Your task to perform on an android device: empty trash in the gmail app Image 0: 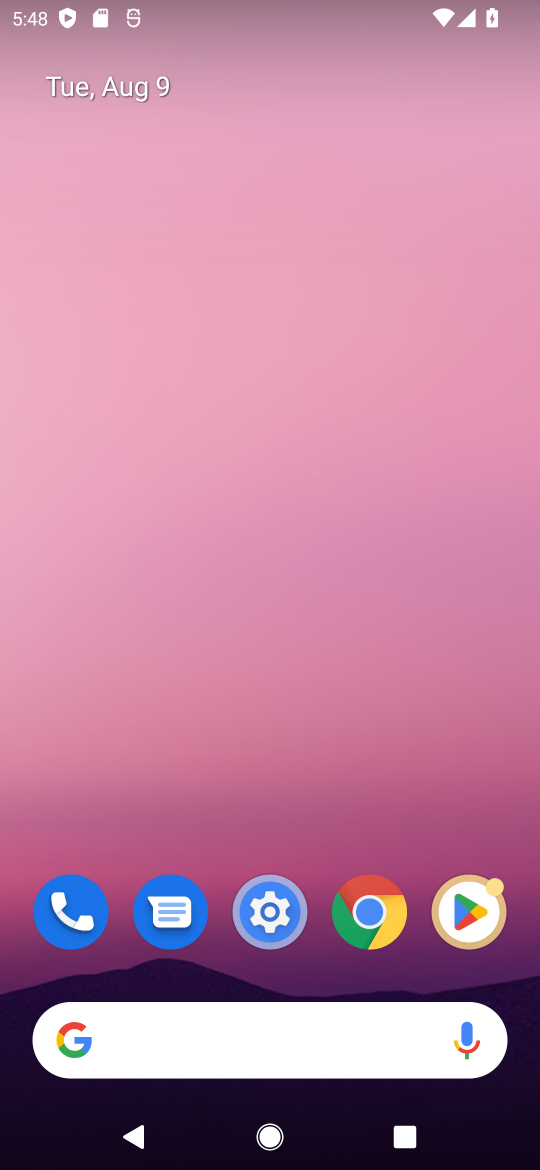
Step 0: drag from (309, 964) to (247, 370)
Your task to perform on an android device: empty trash in the gmail app Image 1: 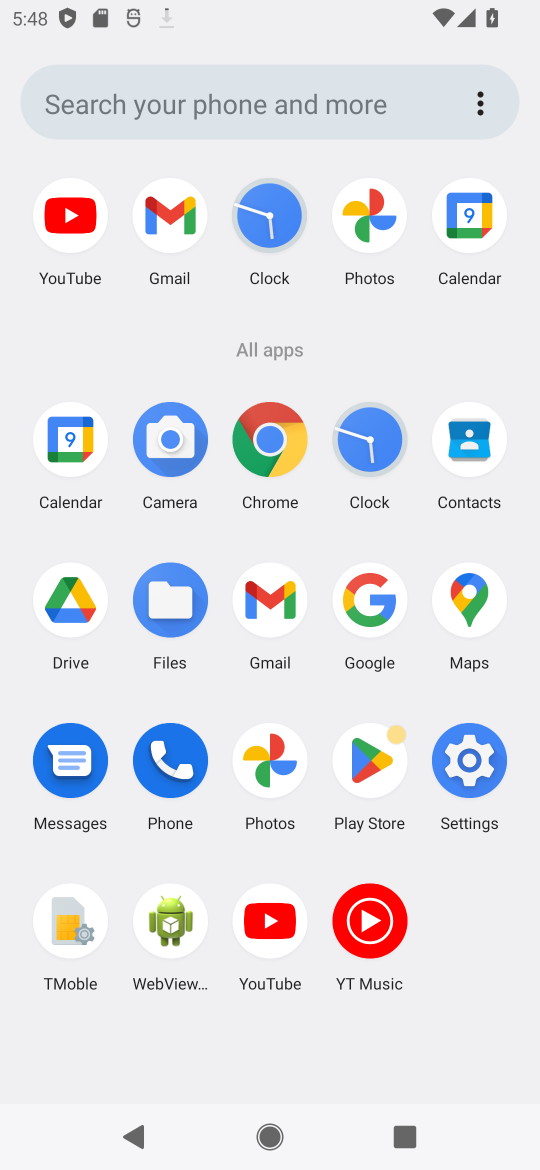
Step 1: click (265, 600)
Your task to perform on an android device: empty trash in the gmail app Image 2: 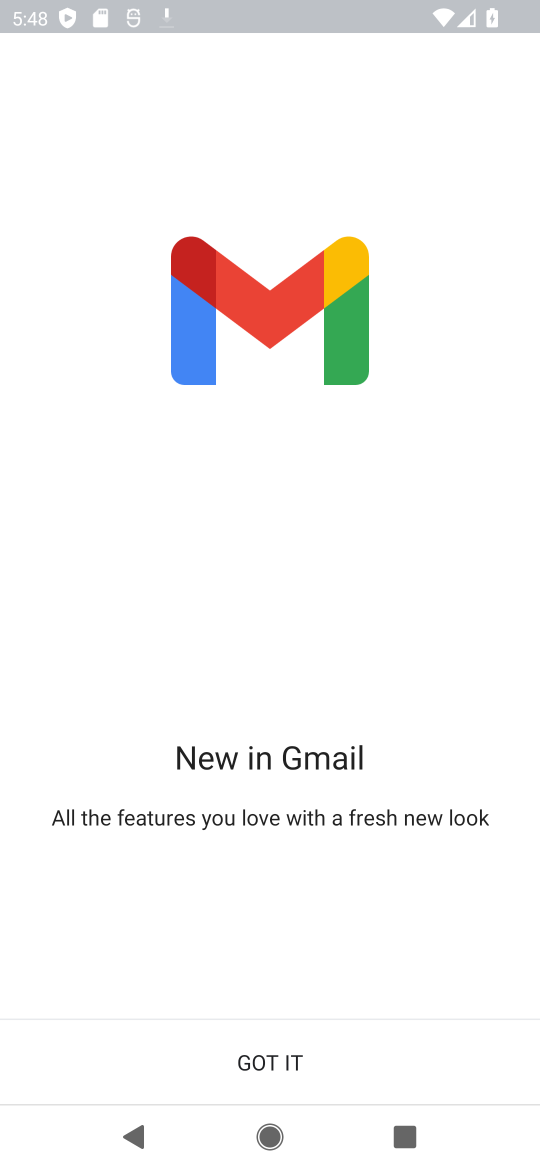
Step 2: click (263, 1067)
Your task to perform on an android device: empty trash in the gmail app Image 3: 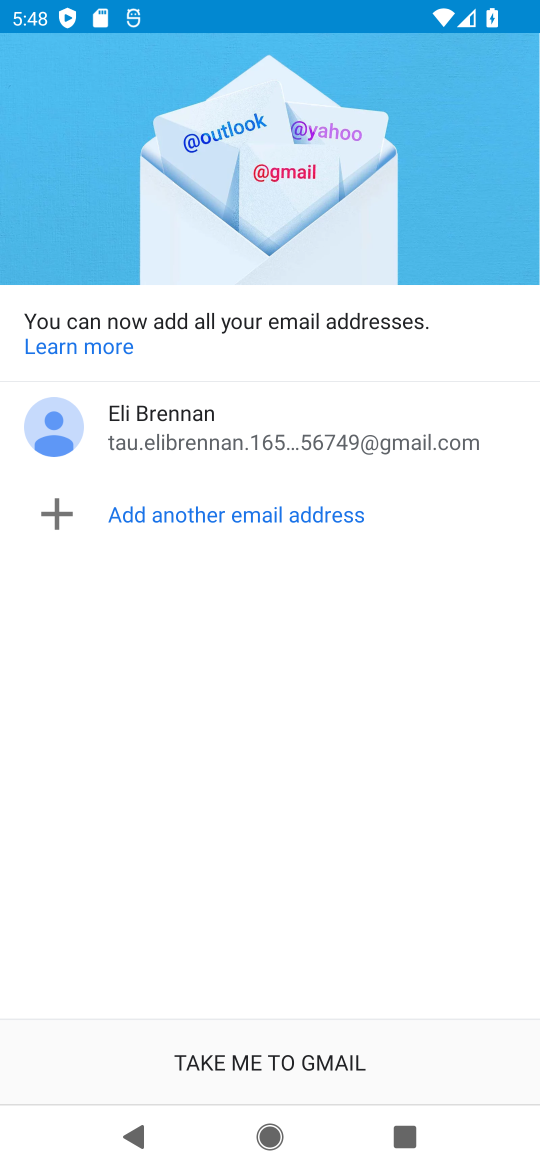
Step 3: click (240, 1071)
Your task to perform on an android device: empty trash in the gmail app Image 4: 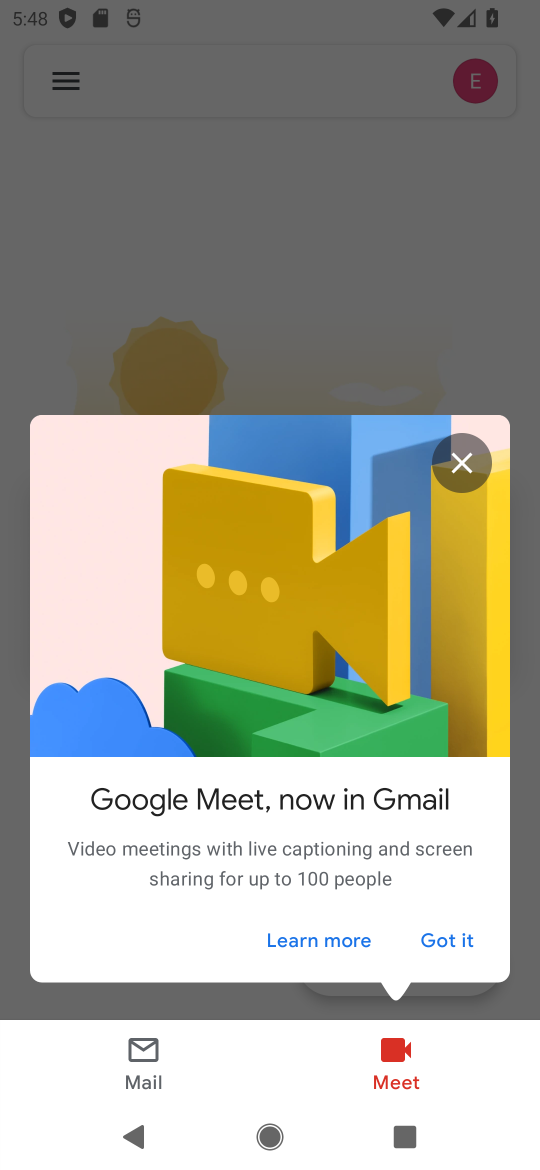
Step 4: click (475, 470)
Your task to perform on an android device: empty trash in the gmail app Image 5: 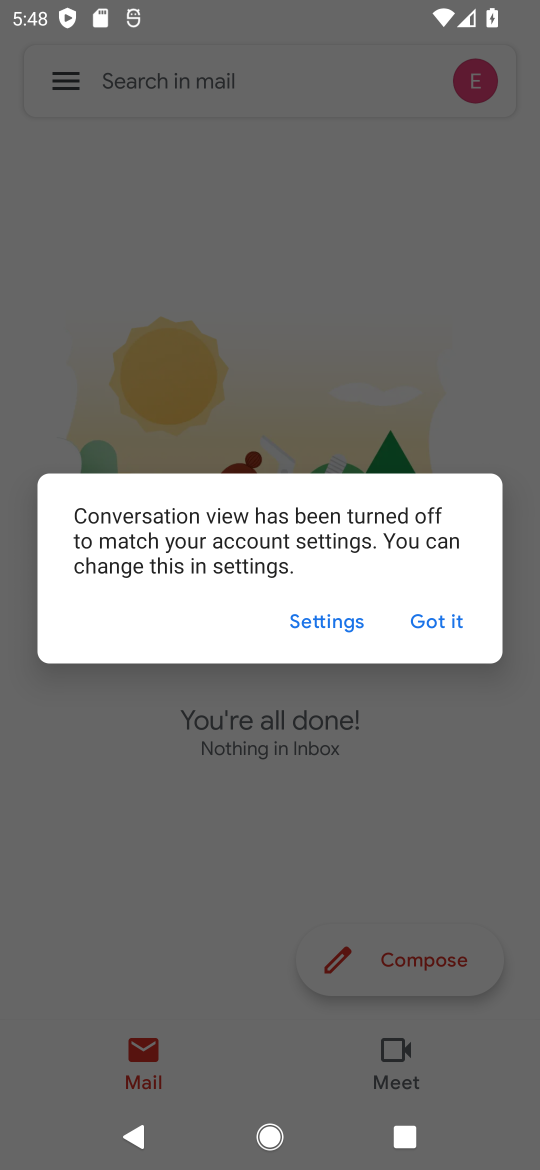
Step 5: click (444, 624)
Your task to perform on an android device: empty trash in the gmail app Image 6: 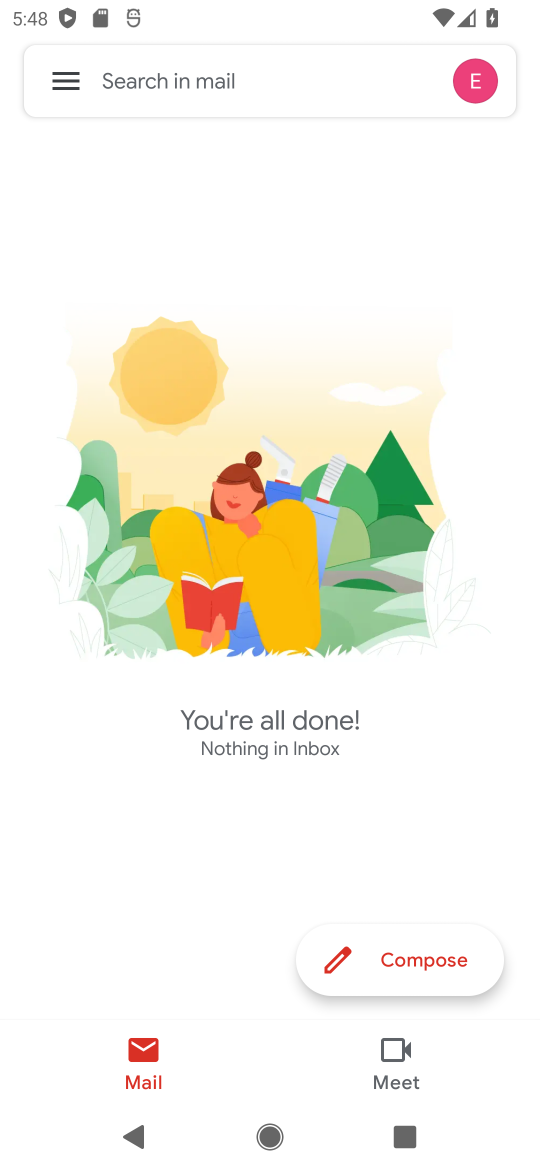
Step 6: click (54, 93)
Your task to perform on an android device: empty trash in the gmail app Image 7: 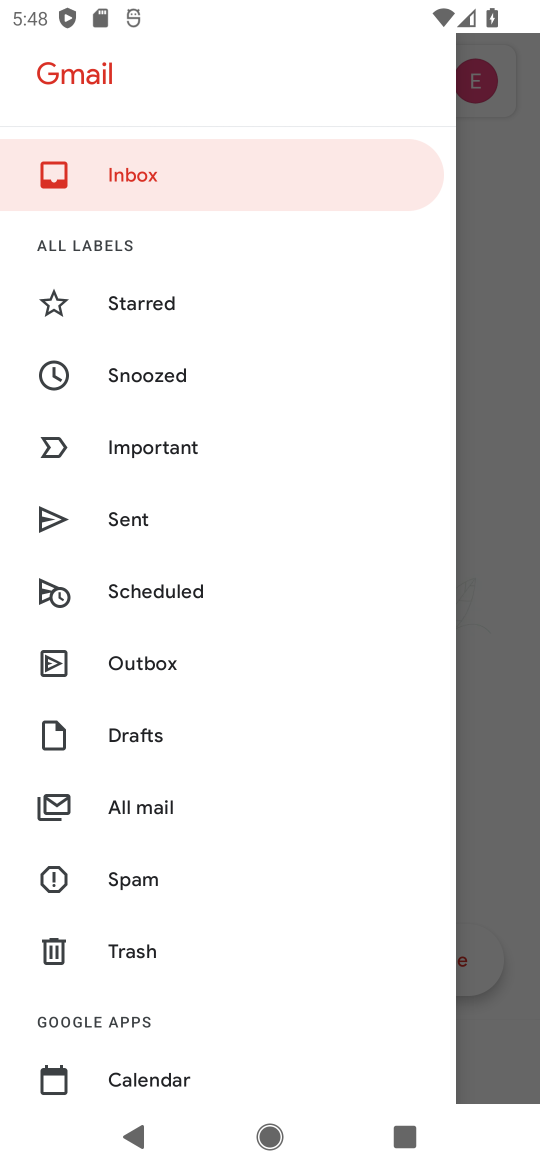
Step 7: click (119, 957)
Your task to perform on an android device: empty trash in the gmail app Image 8: 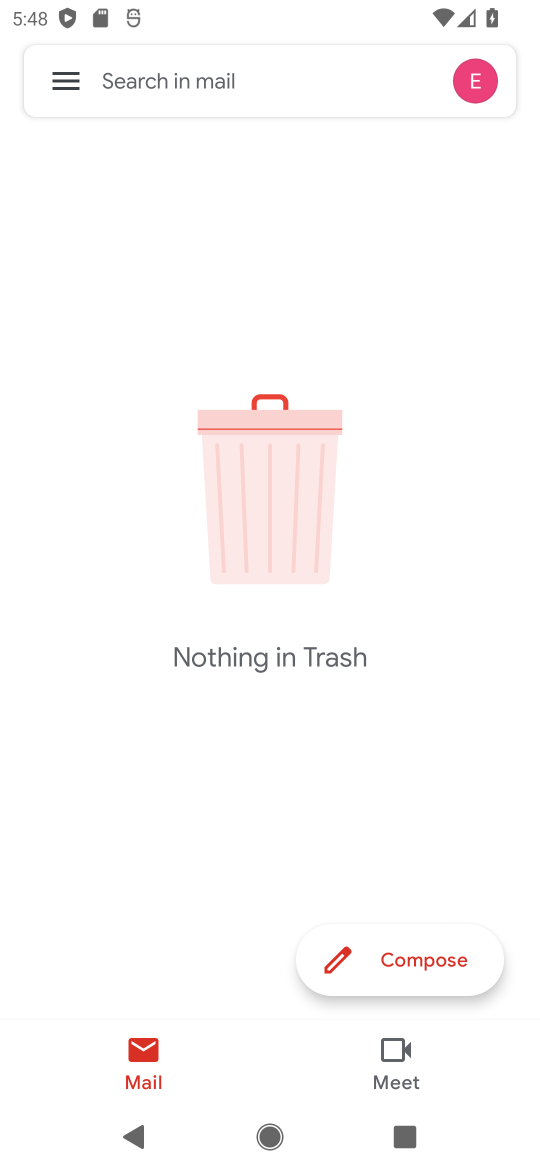
Step 8: task complete